Your task to perform on an android device: View the shopping cart on amazon. Add "macbook air" to the cart on amazon, then select checkout. Image 0: 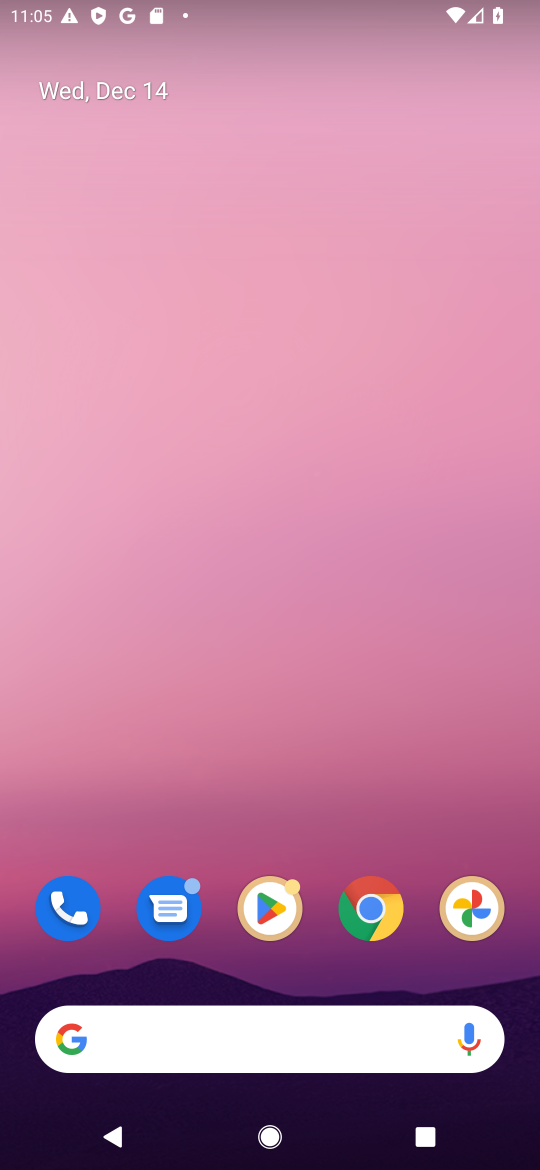
Step 0: click (288, 1048)
Your task to perform on an android device: View the shopping cart on amazon. Add "macbook air" to the cart on amazon, then select checkout. Image 1: 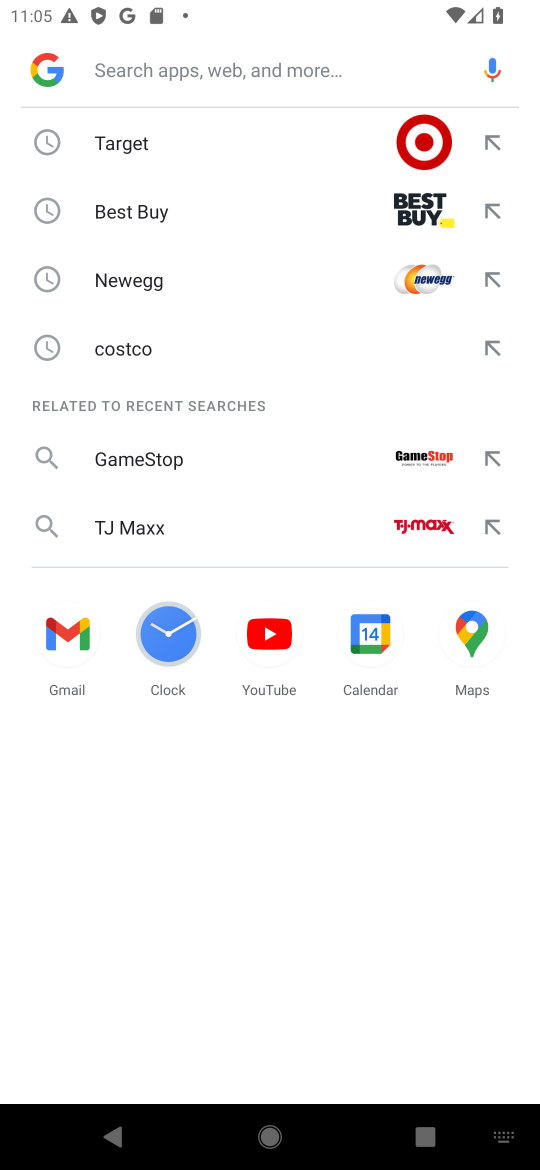
Step 1: type "amazon"
Your task to perform on an android device: View the shopping cart on amazon. Add "macbook air" to the cart on amazon, then select checkout. Image 2: 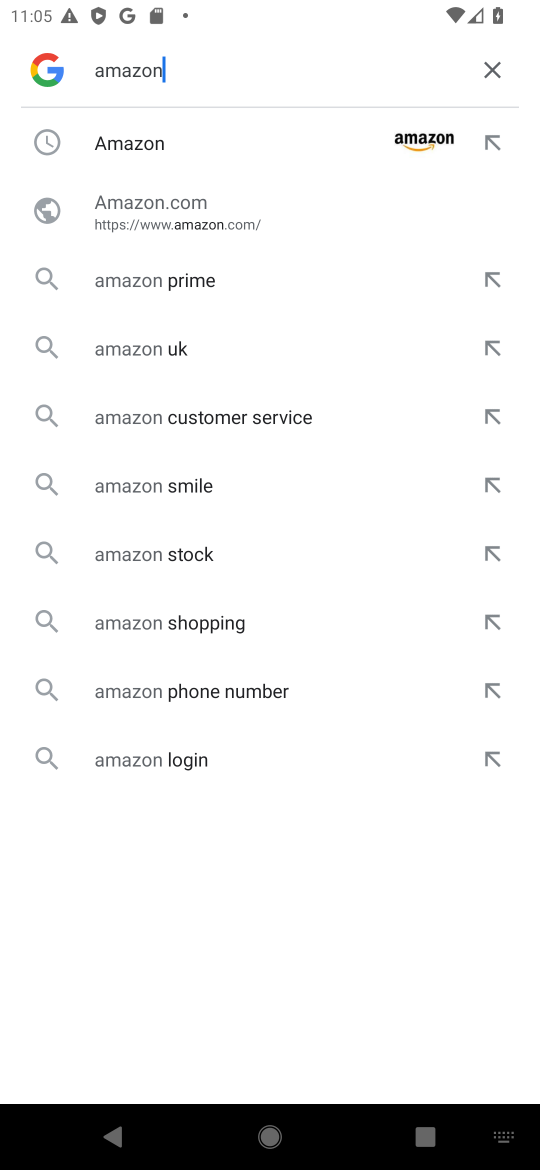
Step 2: click (166, 155)
Your task to perform on an android device: View the shopping cart on amazon. Add "macbook air" to the cart on amazon, then select checkout. Image 3: 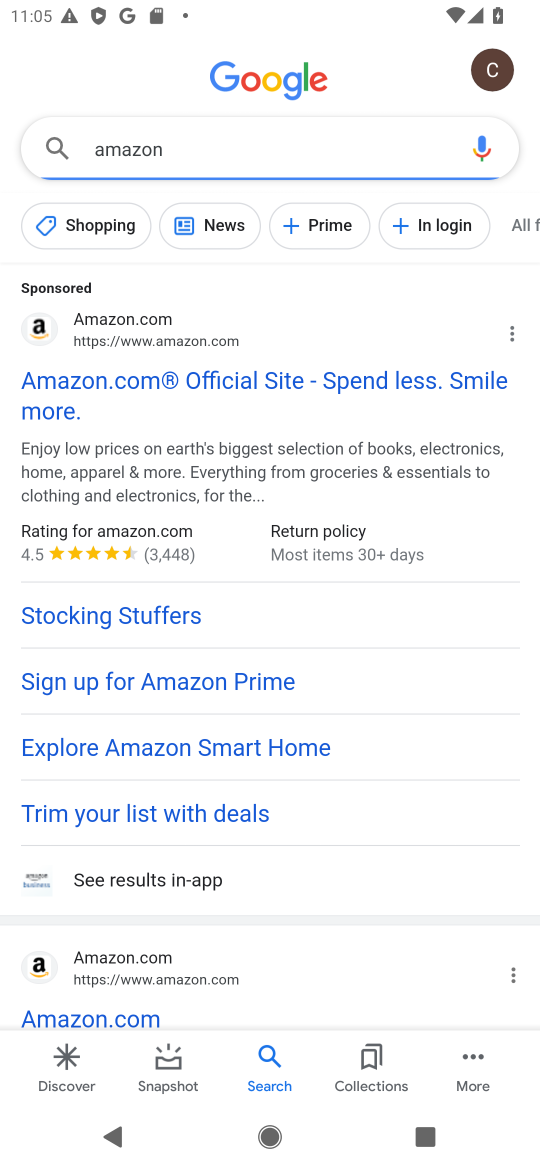
Step 3: click (123, 368)
Your task to perform on an android device: View the shopping cart on amazon. Add "macbook air" to the cart on amazon, then select checkout. Image 4: 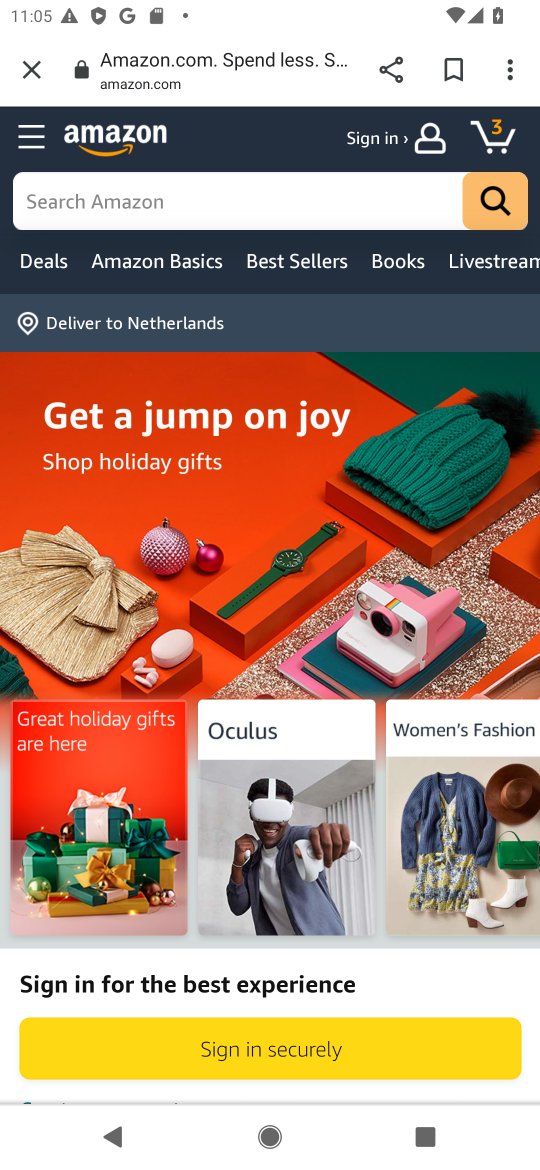
Step 4: click (218, 192)
Your task to perform on an android device: View the shopping cart on amazon. Add "macbook air" to the cart on amazon, then select checkout. Image 5: 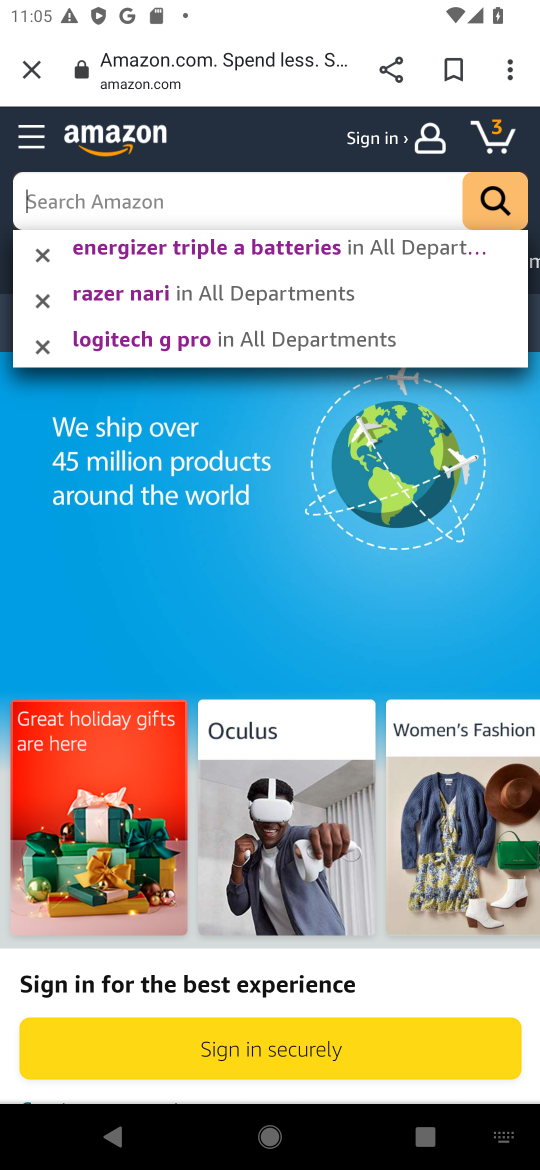
Step 5: type "macbook air"
Your task to perform on an android device: View the shopping cart on amazon. Add "macbook air" to the cart on amazon, then select checkout. Image 6: 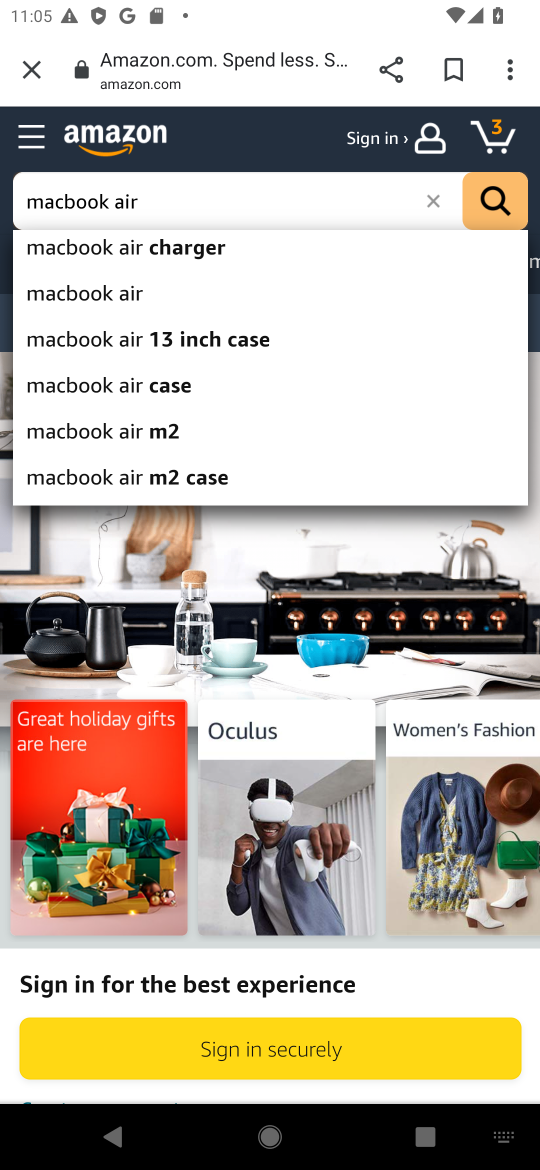
Step 6: click (170, 308)
Your task to perform on an android device: View the shopping cart on amazon. Add "macbook air" to the cart on amazon, then select checkout. Image 7: 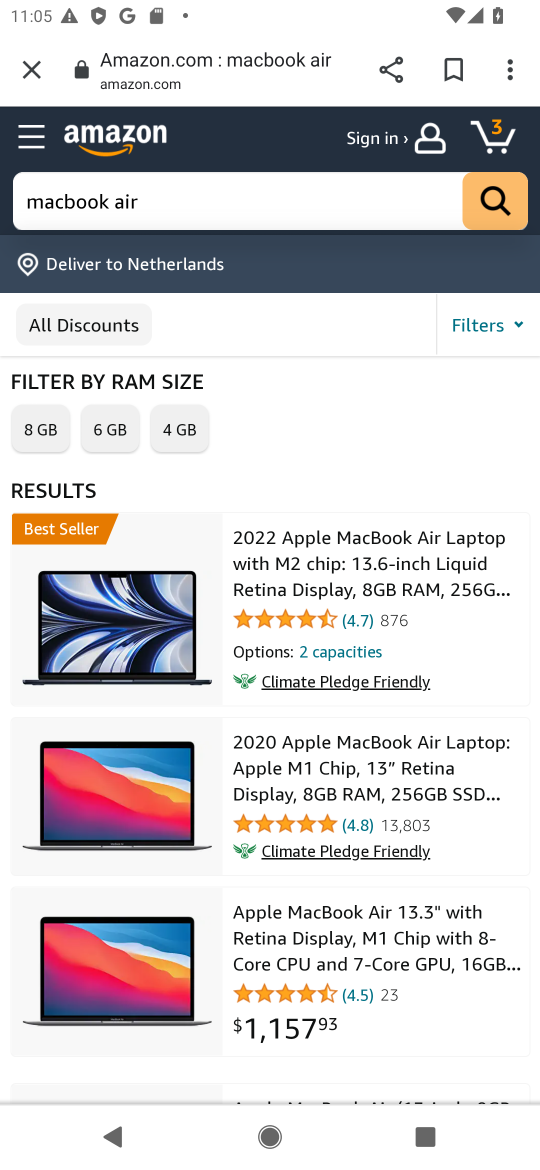
Step 7: click (350, 621)
Your task to perform on an android device: View the shopping cart on amazon. Add "macbook air" to the cart on amazon, then select checkout. Image 8: 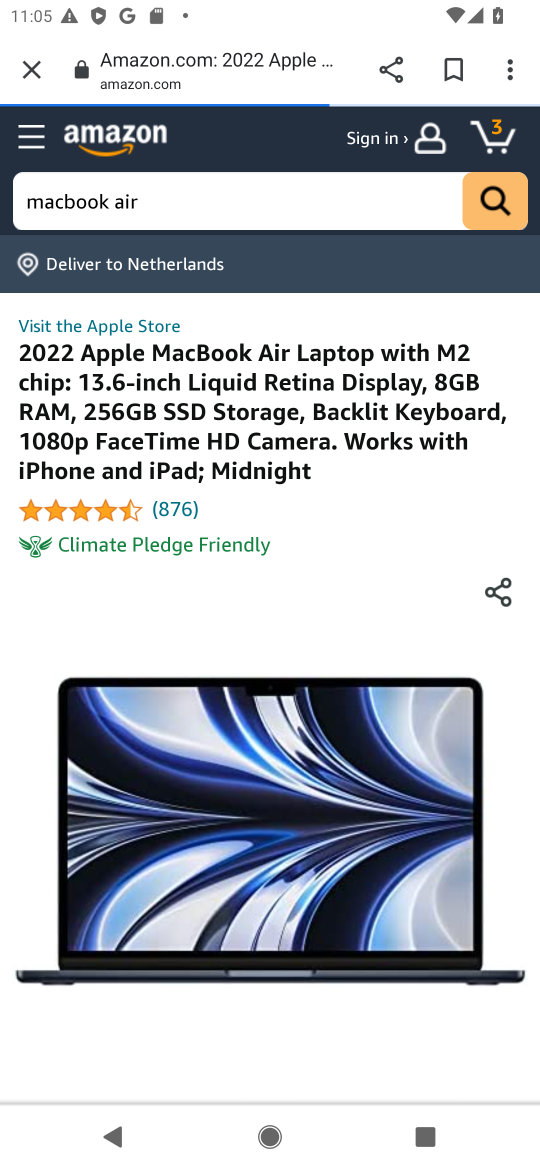
Step 8: drag from (235, 898) to (285, 411)
Your task to perform on an android device: View the shopping cart on amazon. Add "macbook air" to the cart on amazon, then select checkout. Image 9: 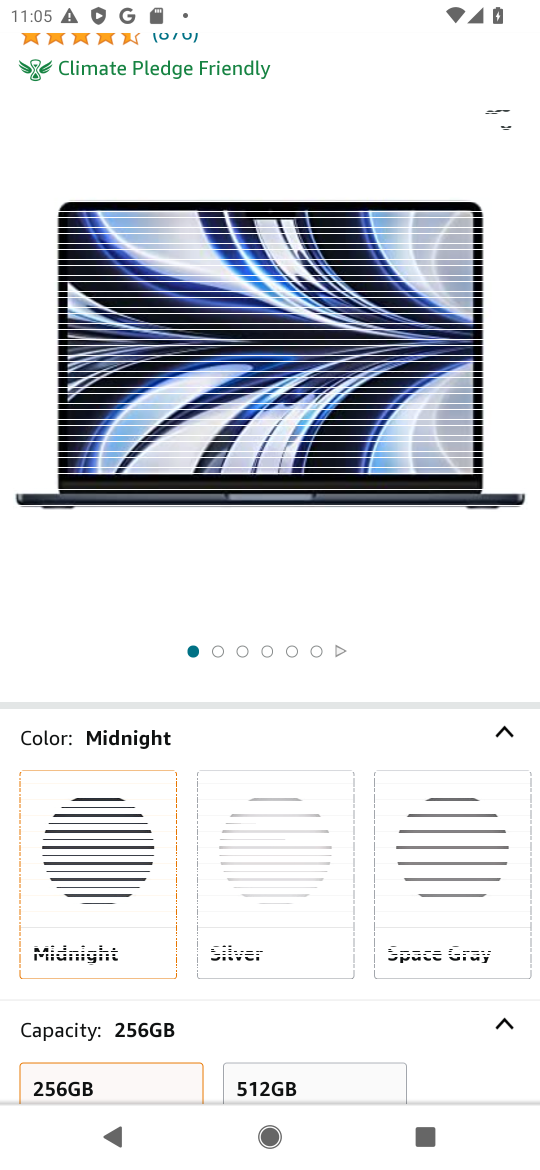
Step 9: drag from (267, 999) to (278, 252)
Your task to perform on an android device: View the shopping cart on amazon. Add "macbook air" to the cart on amazon, then select checkout. Image 10: 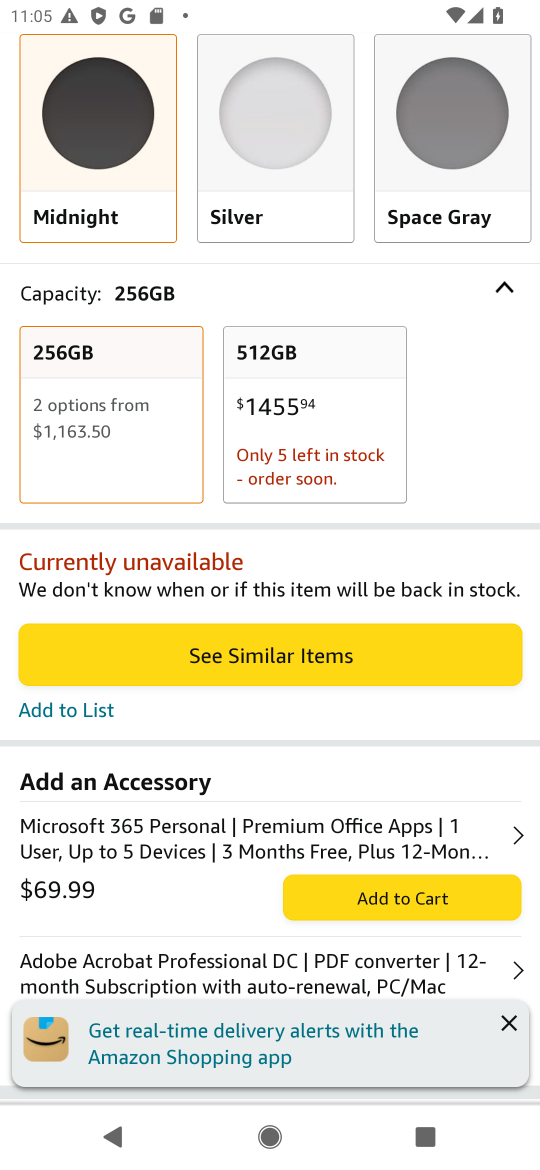
Step 10: click (524, 1027)
Your task to perform on an android device: View the shopping cart on amazon. Add "macbook air" to the cart on amazon, then select checkout. Image 11: 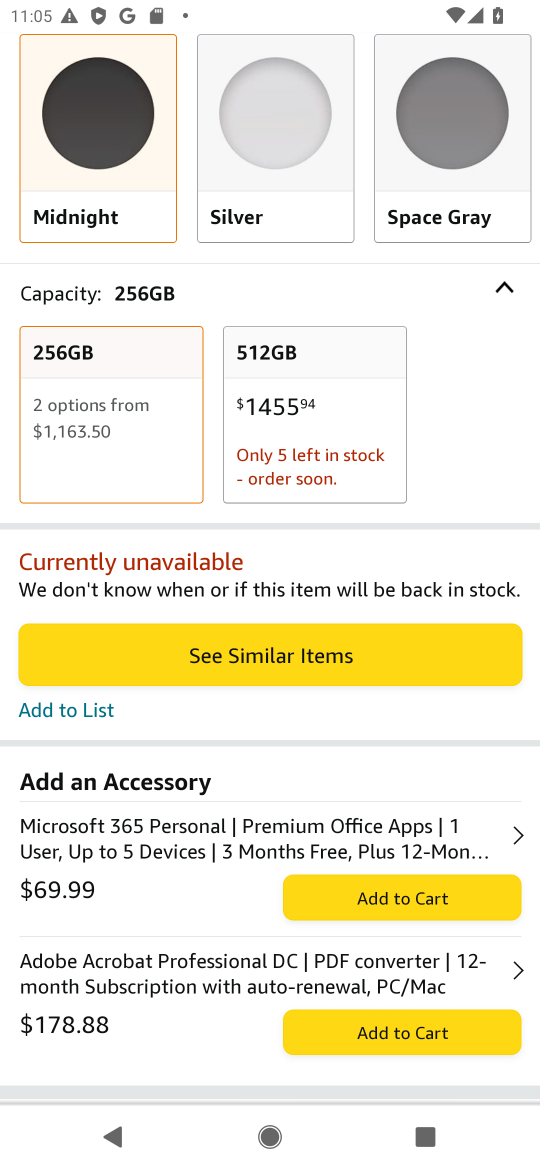
Step 11: click (285, 651)
Your task to perform on an android device: View the shopping cart on amazon. Add "macbook air" to the cart on amazon, then select checkout. Image 12: 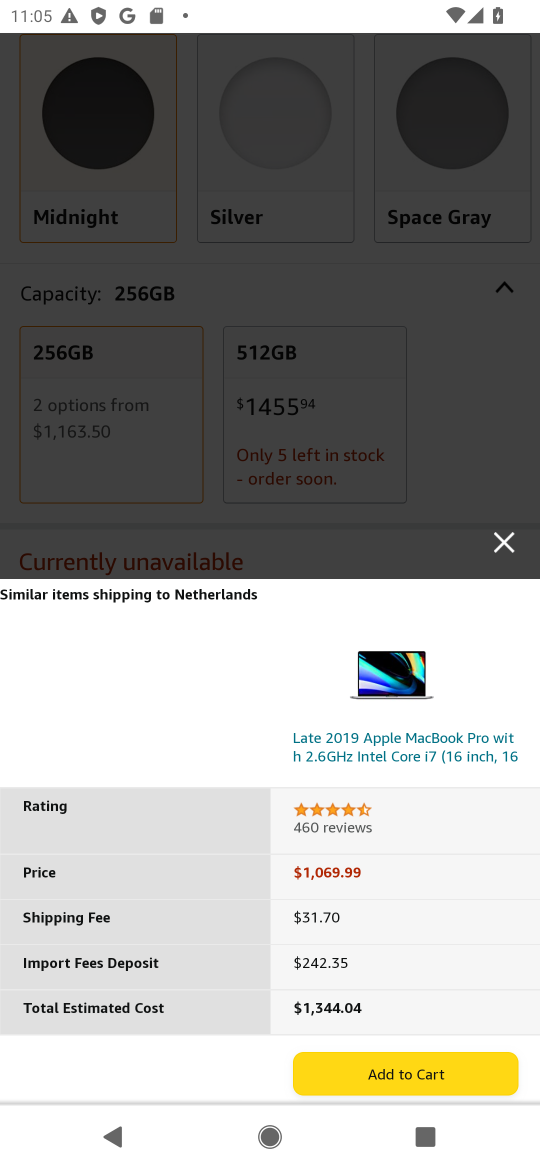
Step 12: click (430, 1062)
Your task to perform on an android device: View the shopping cart on amazon. Add "macbook air" to the cart on amazon, then select checkout. Image 13: 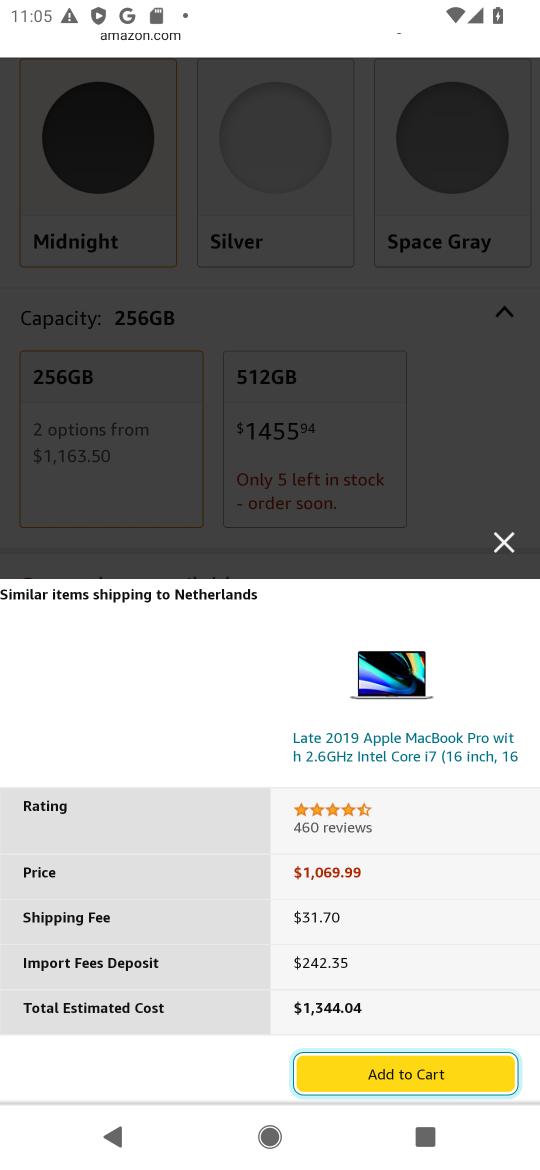
Step 13: task complete